Your task to perform on an android device: open app "Google Chat" (install if not already installed) Image 0: 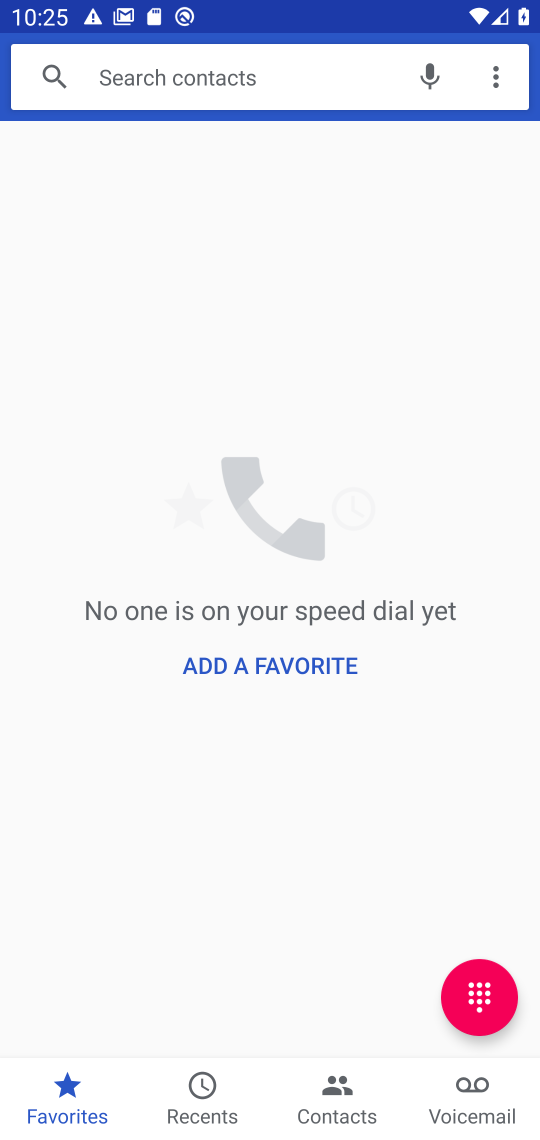
Step 0: press home button
Your task to perform on an android device: open app "Google Chat" (install if not already installed) Image 1: 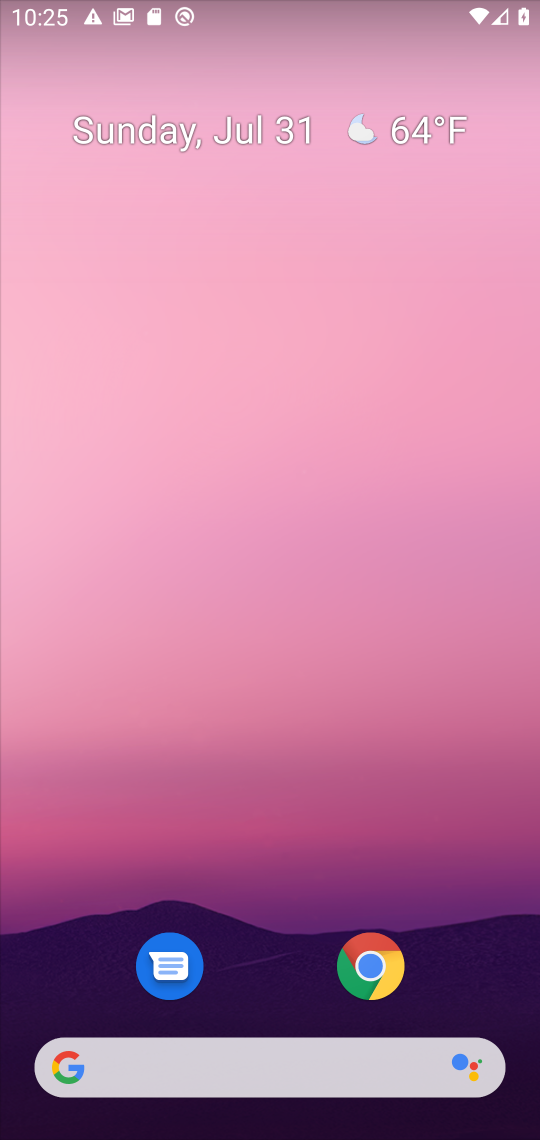
Step 1: drag from (266, 988) to (314, 19)
Your task to perform on an android device: open app "Google Chat" (install if not already installed) Image 2: 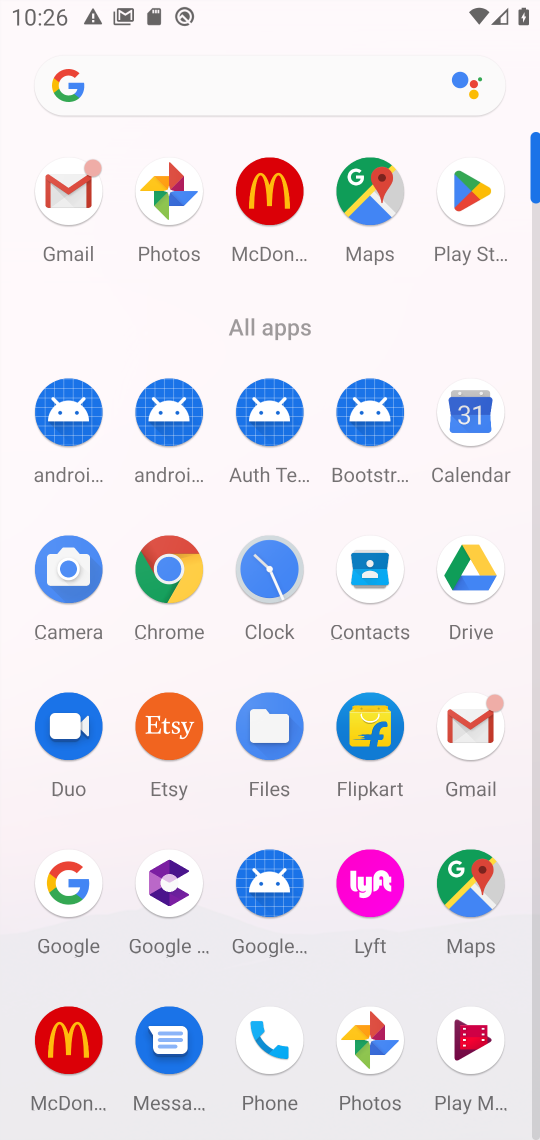
Step 2: click (474, 202)
Your task to perform on an android device: open app "Google Chat" (install if not already installed) Image 3: 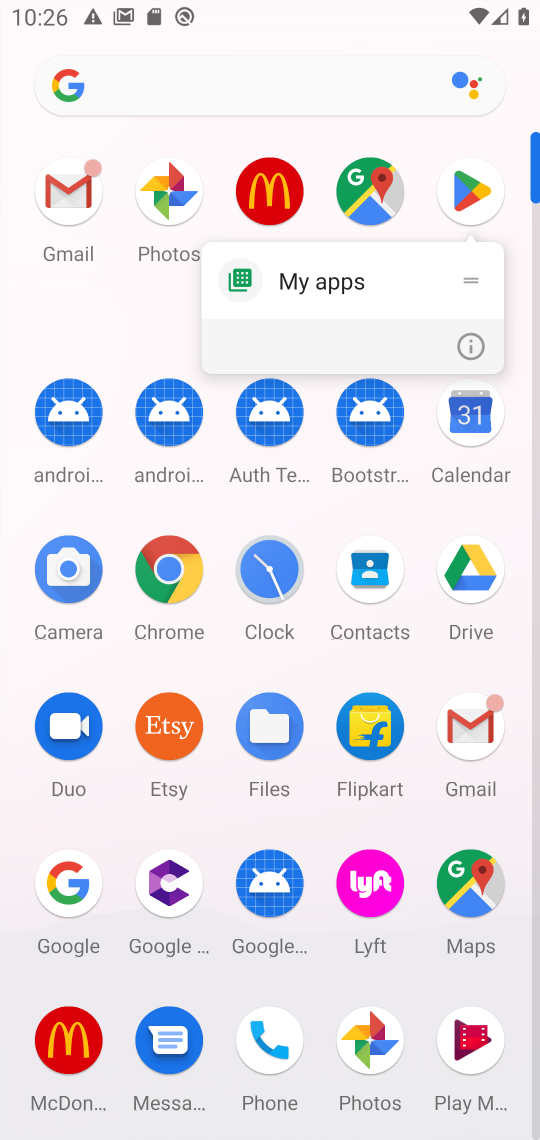
Step 3: click (473, 199)
Your task to perform on an android device: open app "Google Chat" (install if not already installed) Image 4: 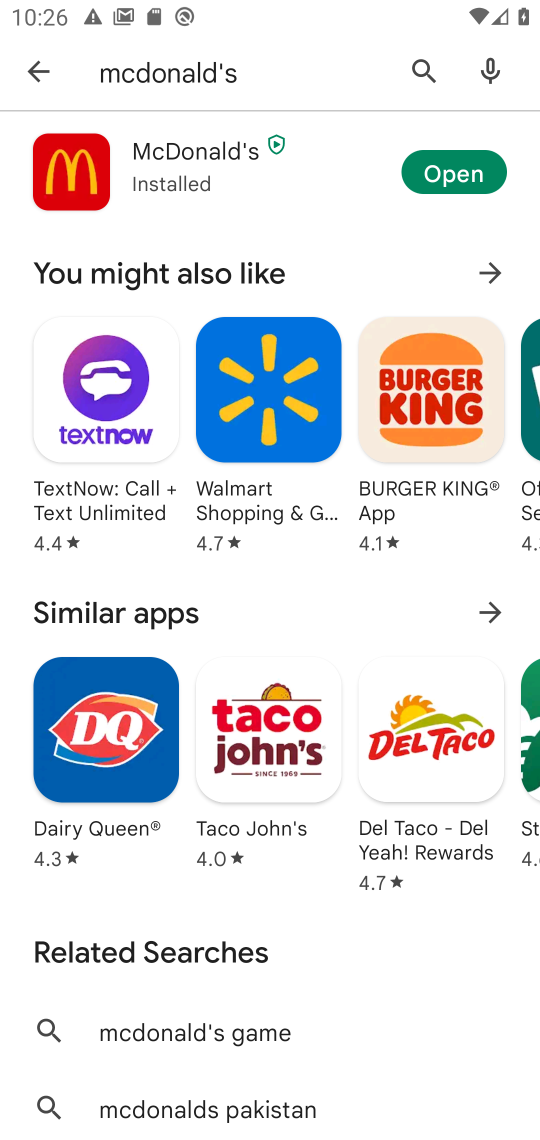
Step 4: click (258, 74)
Your task to perform on an android device: open app "Google Chat" (install if not already installed) Image 5: 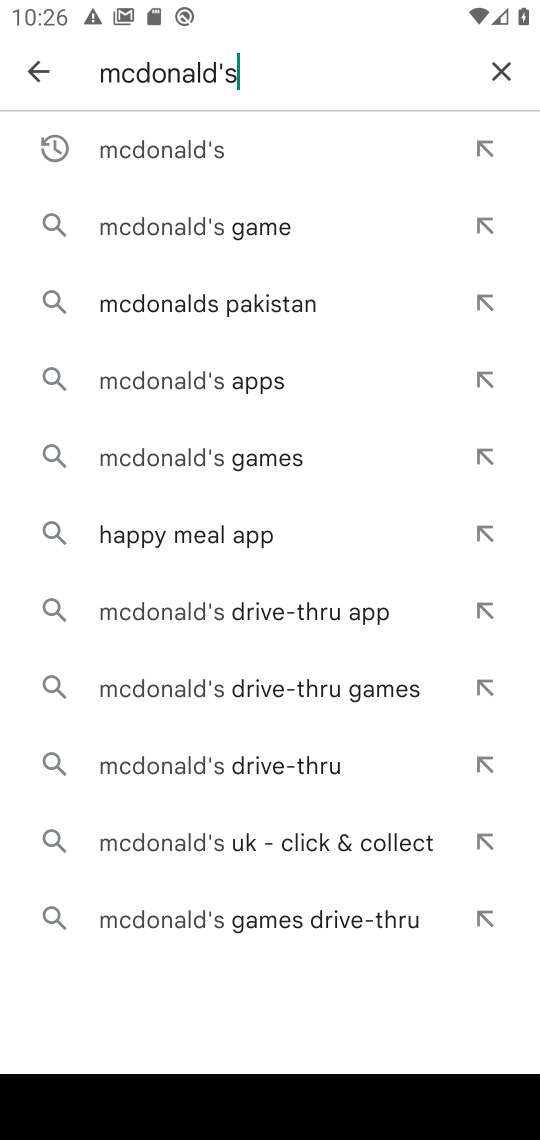
Step 5: click (471, 56)
Your task to perform on an android device: open app "Google Chat" (install if not already installed) Image 6: 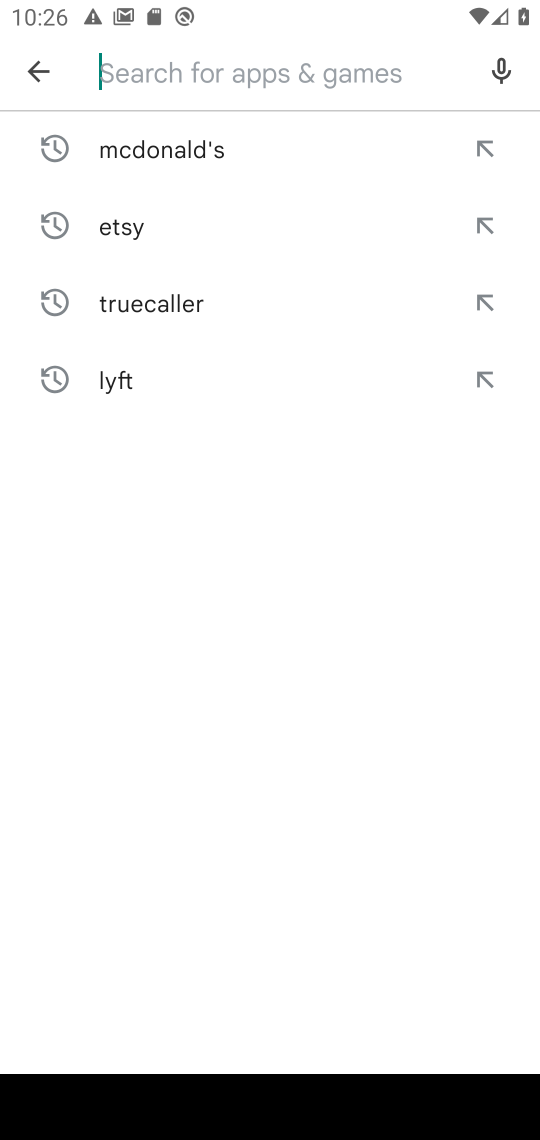
Step 6: type "google chat"
Your task to perform on an android device: open app "Google Chat" (install if not already installed) Image 7: 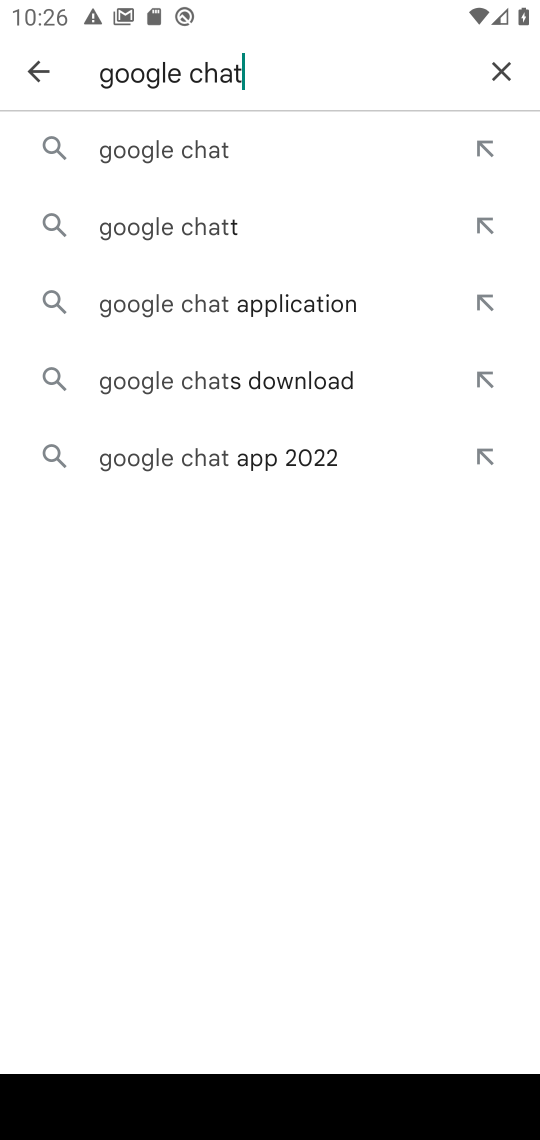
Step 7: click (225, 156)
Your task to perform on an android device: open app "Google Chat" (install if not already installed) Image 8: 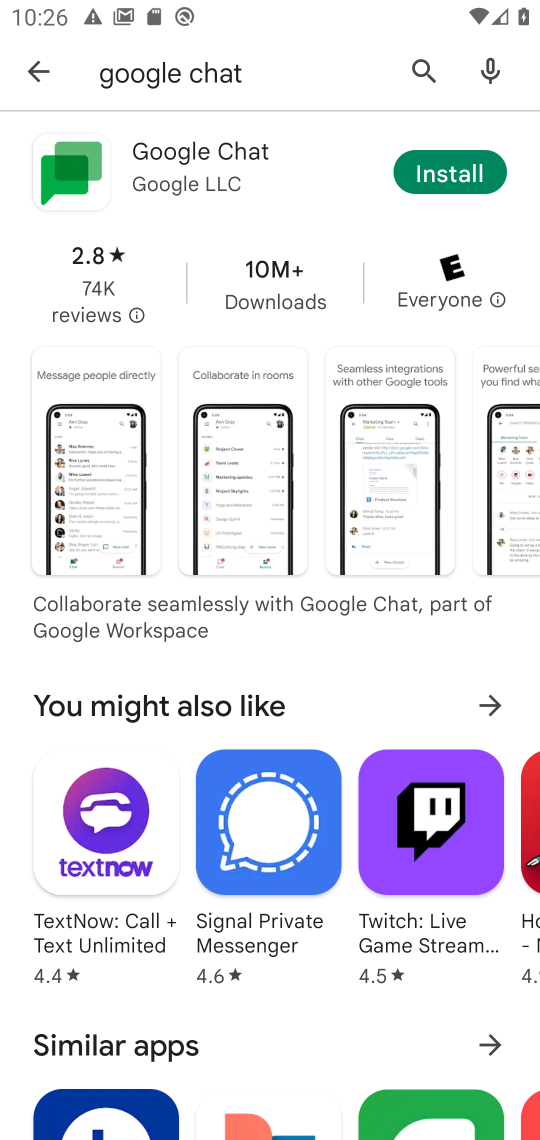
Step 8: click (438, 168)
Your task to perform on an android device: open app "Google Chat" (install if not already installed) Image 9: 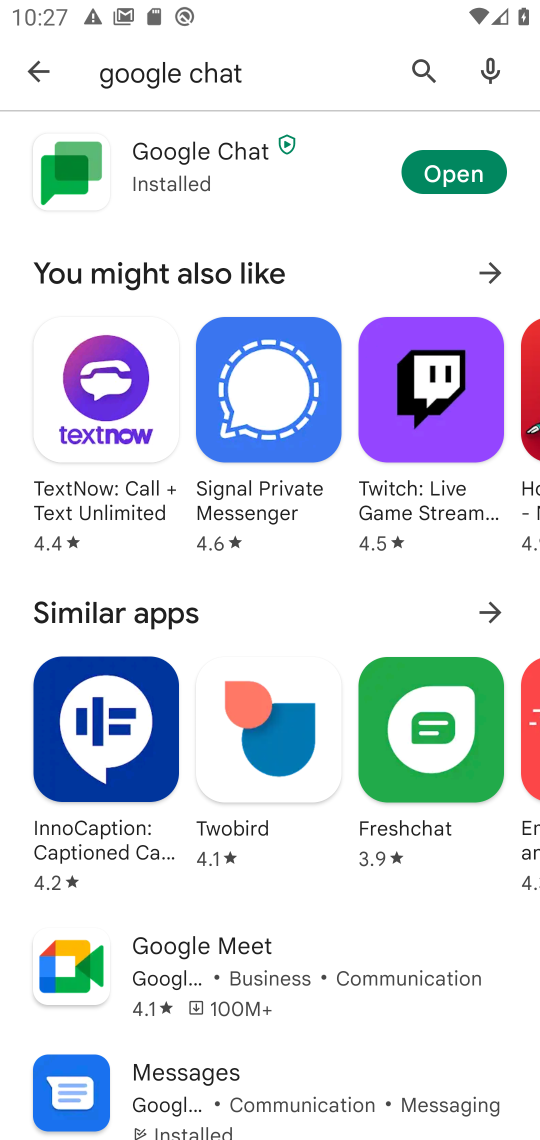
Step 9: click (452, 173)
Your task to perform on an android device: open app "Google Chat" (install if not already installed) Image 10: 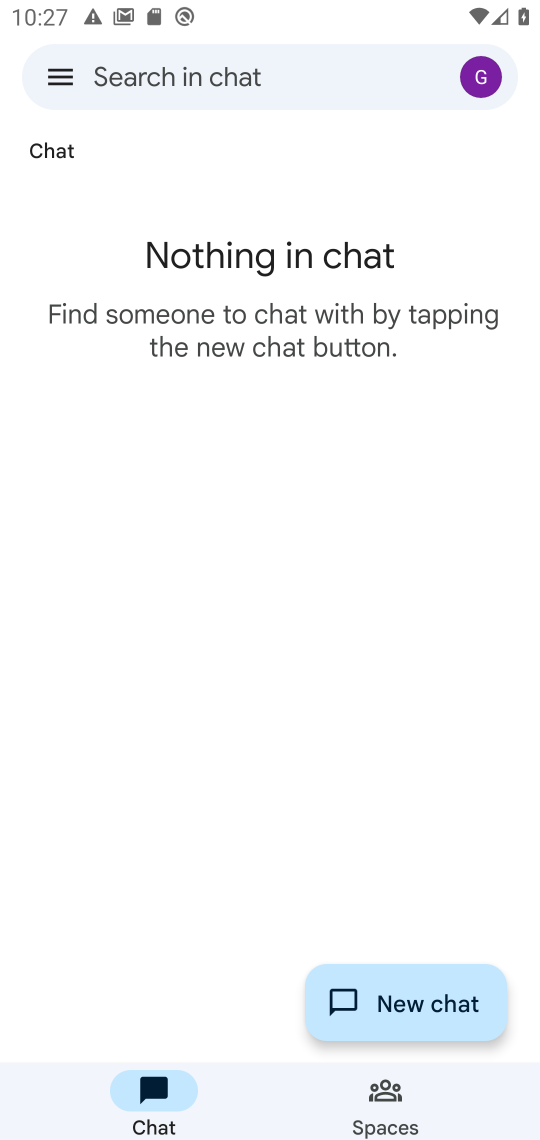
Step 10: task complete